Your task to perform on an android device: Open display settings Image 0: 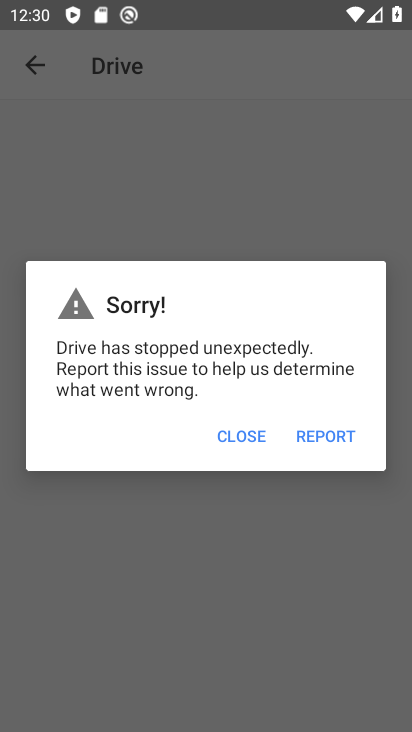
Step 0: press home button
Your task to perform on an android device: Open display settings Image 1: 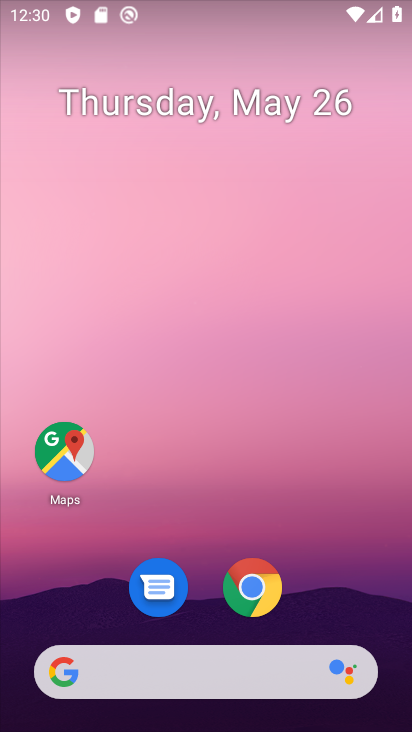
Step 1: drag from (371, 618) to (373, 191)
Your task to perform on an android device: Open display settings Image 2: 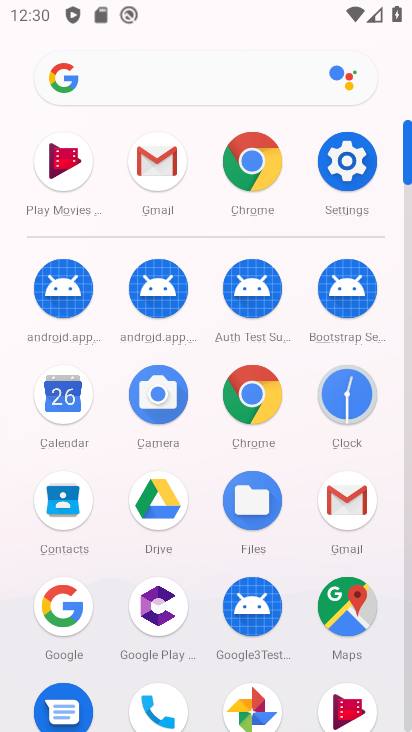
Step 2: click (355, 186)
Your task to perform on an android device: Open display settings Image 3: 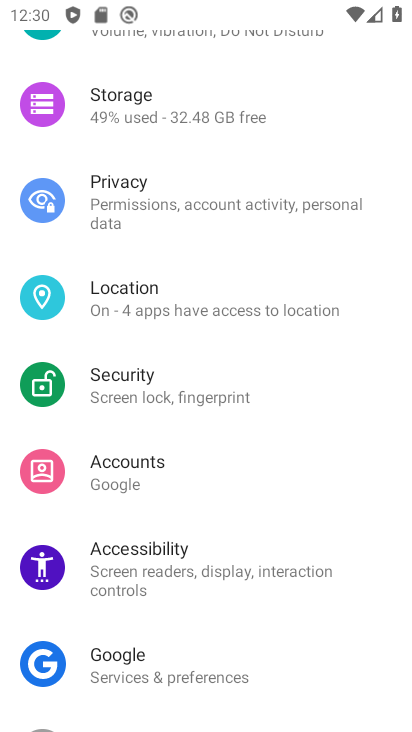
Step 3: drag from (352, 255) to (349, 341)
Your task to perform on an android device: Open display settings Image 4: 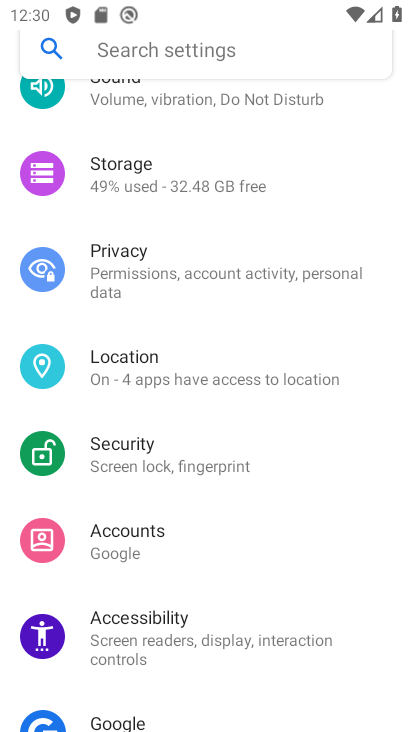
Step 4: drag from (373, 225) to (369, 300)
Your task to perform on an android device: Open display settings Image 5: 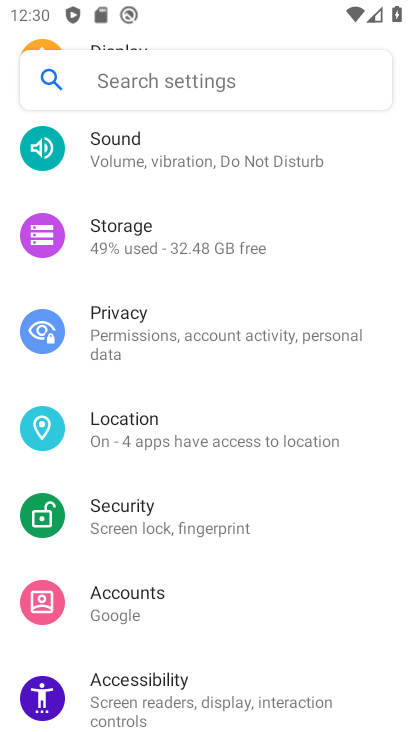
Step 5: drag from (373, 209) to (362, 293)
Your task to perform on an android device: Open display settings Image 6: 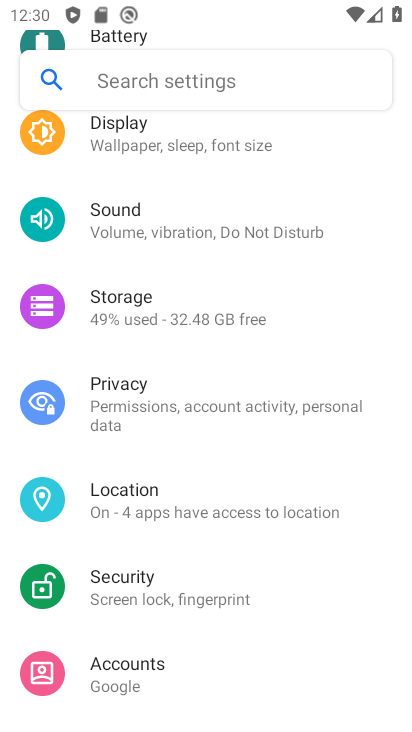
Step 6: drag from (352, 195) to (351, 281)
Your task to perform on an android device: Open display settings Image 7: 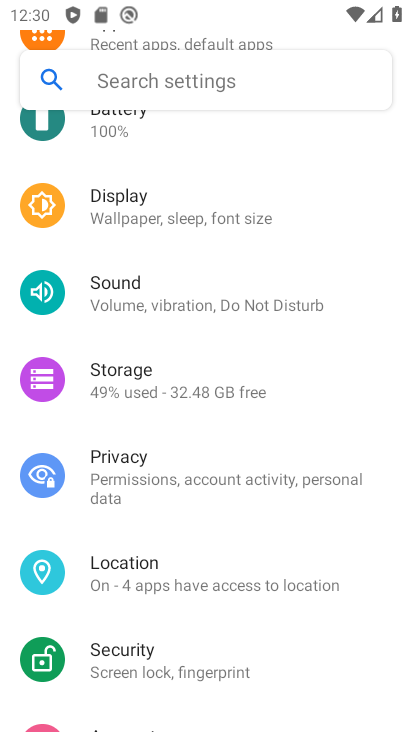
Step 7: drag from (368, 199) to (366, 269)
Your task to perform on an android device: Open display settings Image 8: 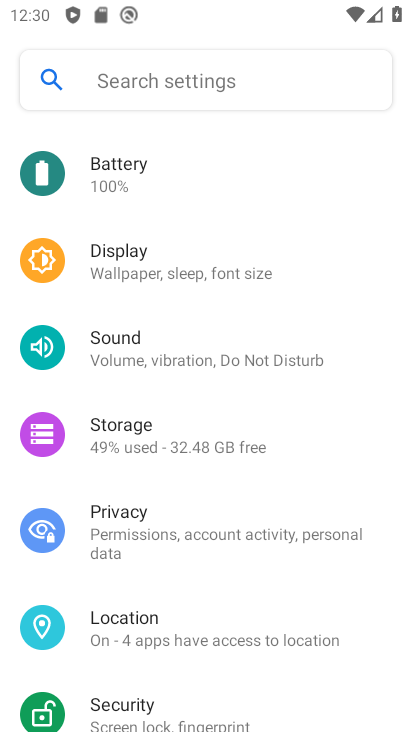
Step 8: drag from (366, 177) to (360, 248)
Your task to perform on an android device: Open display settings Image 9: 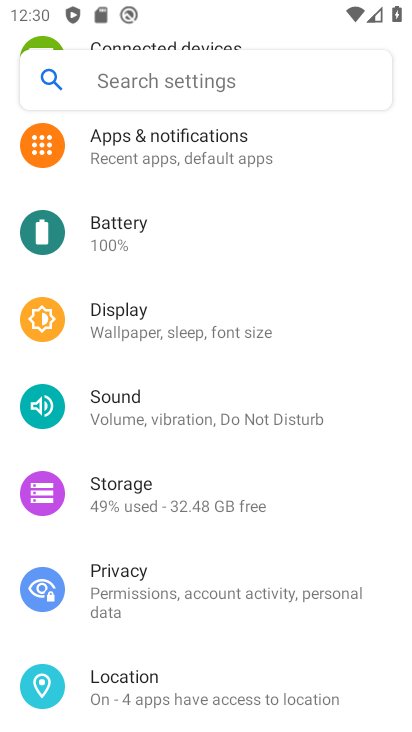
Step 9: drag from (355, 163) to (367, 248)
Your task to perform on an android device: Open display settings Image 10: 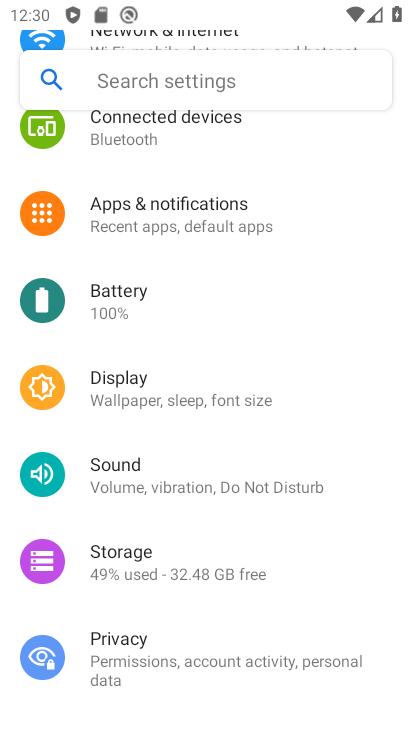
Step 10: drag from (371, 173) to (360, 250)
Your task to perform on an android device: Open display settings Image 11: 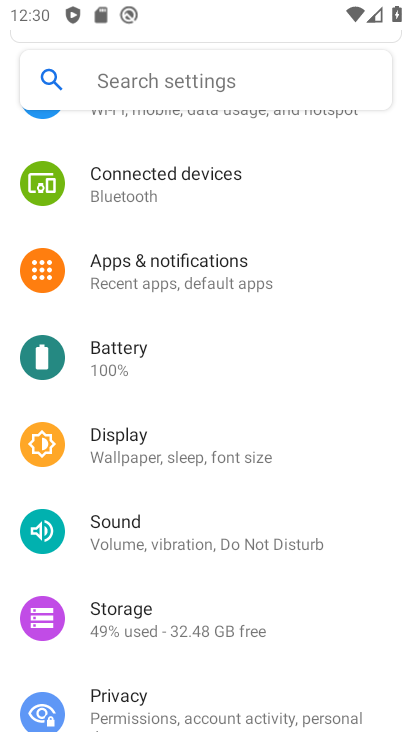
Step 11: drag from (355, 198) to (355, 261)
Your task to perform on an android device: Open display settings Image 12: 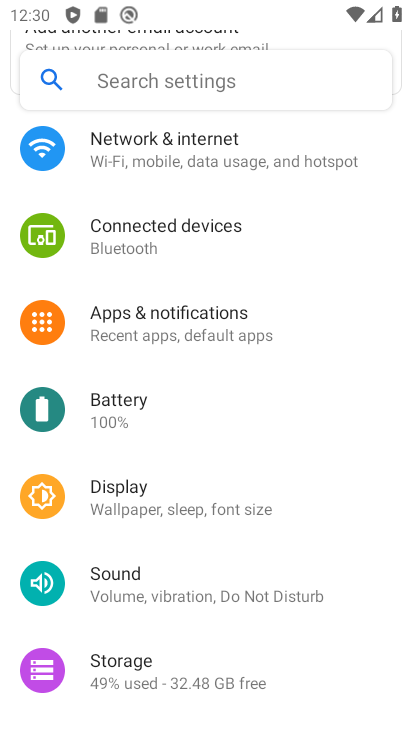
Step 12: drag from (342, 209) to (341, 320)
Your task to perform on an android device: Open display settings Image 13: 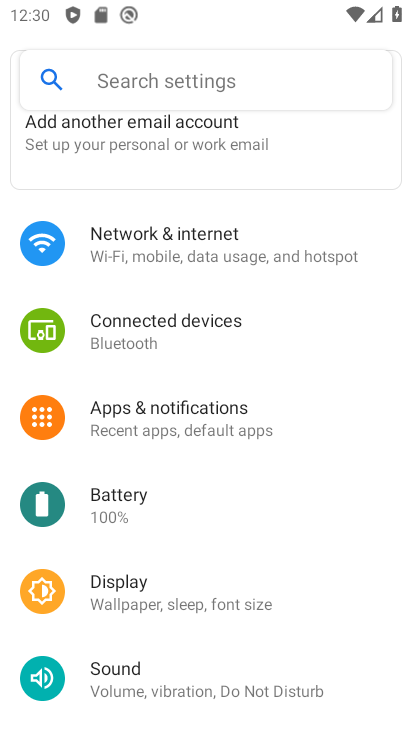
Step 13: drag from (336, 222) to (336, 309)
Your task to perform on an android device: Open display settings Image 14: 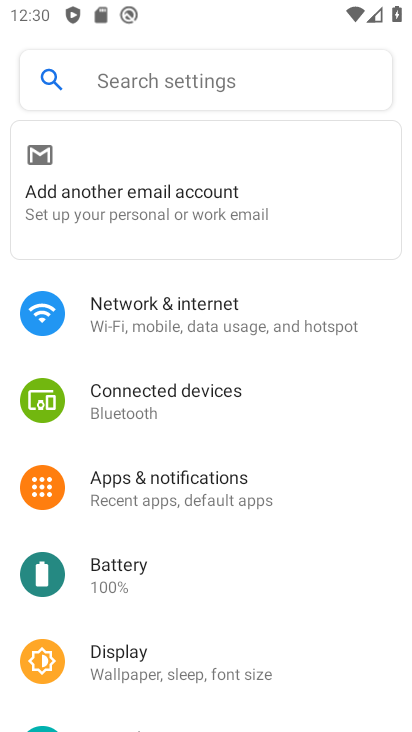
Step 14: click (282, 680)
Your task to perform on an android device: Open display settings Image 15: 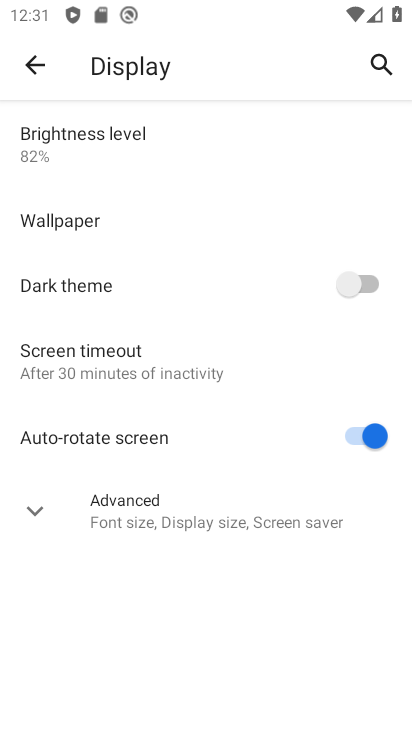
Step 15: click (254, 516)
Your task to perform on an android device: Open display settings Image 16: 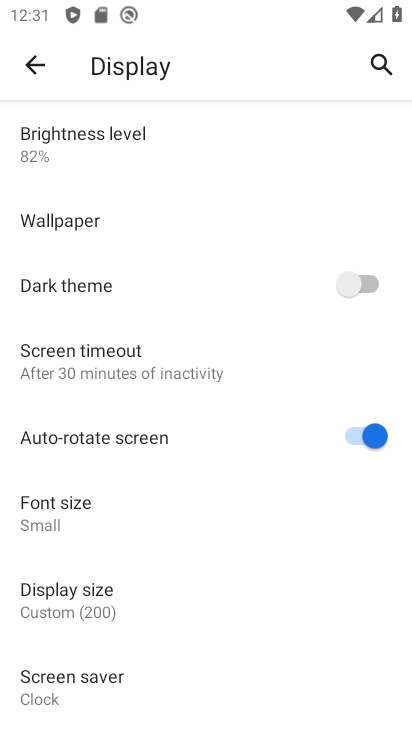
Step 16: task complete